Your task to perform on an android device: Clear all items from cart on newegg. Search for "razer deathadder" on newegg, select the first entry, and add it to the cart. Image 0: 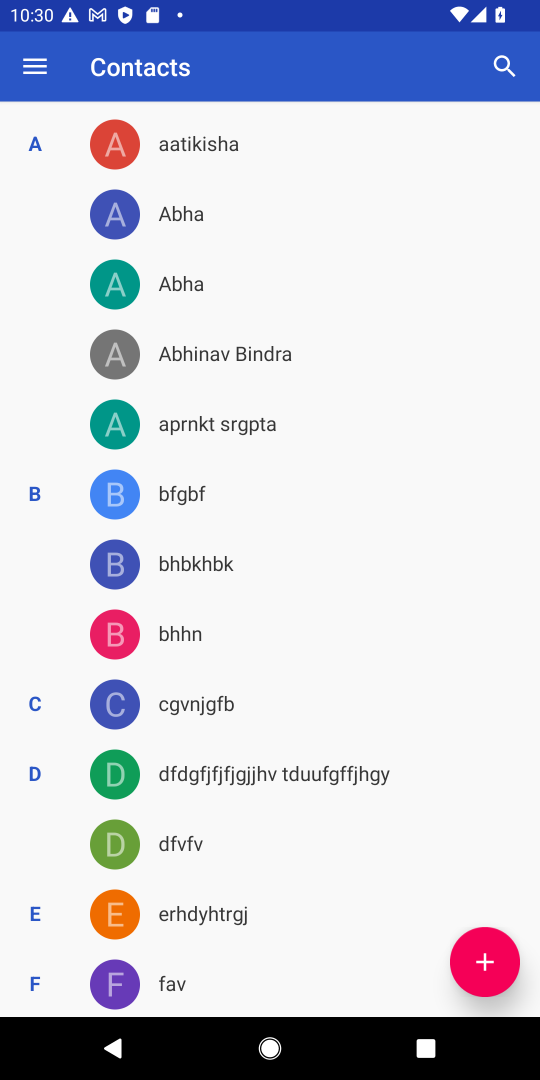
Step 0: press home button
Your task to perform on an android device: Clear all items from cart on newegg. Search for "razer deathadder" on newegg, select the first entry, and add it to the cart. Image 1: 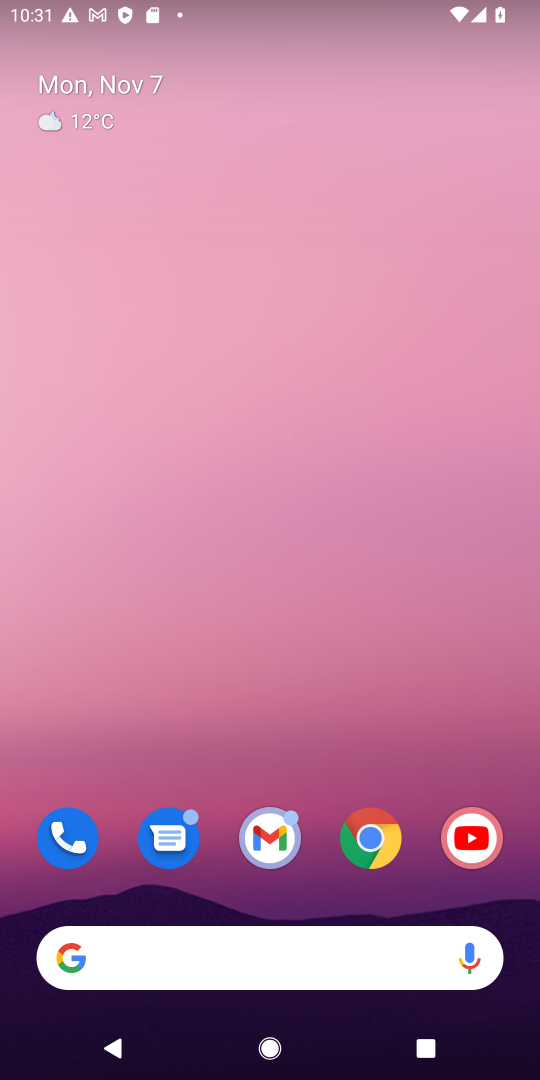
Step 1: click (372, 826)
Your task to perform on an android device: Clear all items from cart on newegg. Search for "razer deathadder" on newegg, select the first entry, and add it to the cart. Image 2: 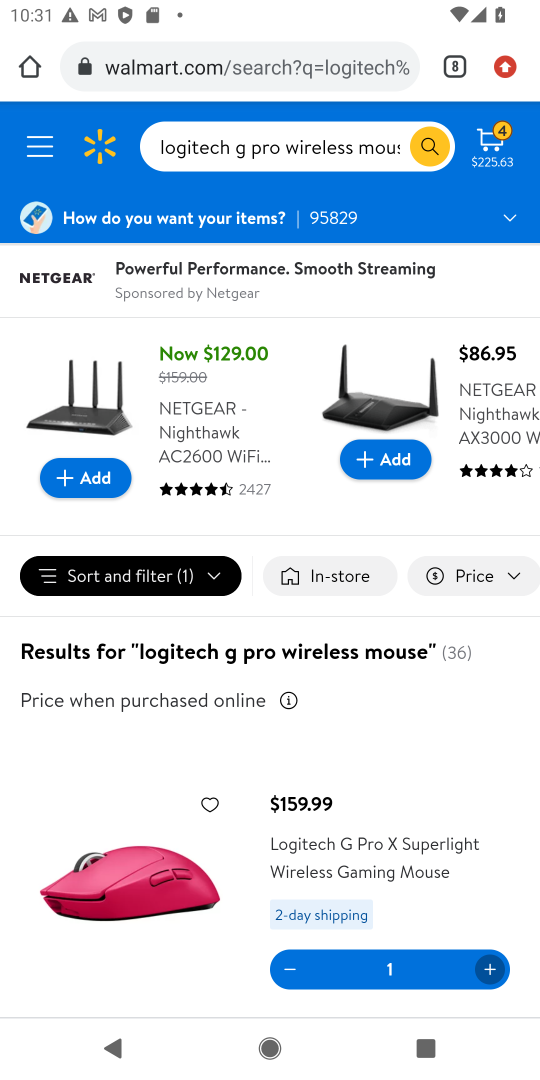
Step 2: click (452, 65)
Your task to perform on an android device: Clear all items from cart on newegg. Search for "razer deathadder" on newegg, select the first entry, and add it to the cart. Image 3: 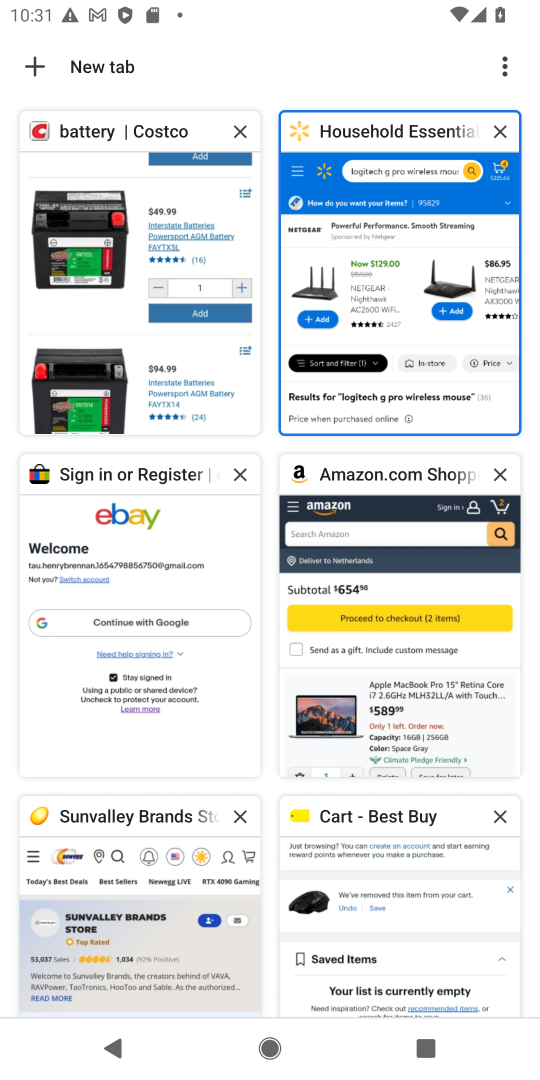
Step 3: drag from (213, 1001) to (331, 479)
Your task to perform on an android device: Clear all items from cart on newegg. Search for "razer deathadder" on newegg, select the first entry, and add it to the cart. Image 4: 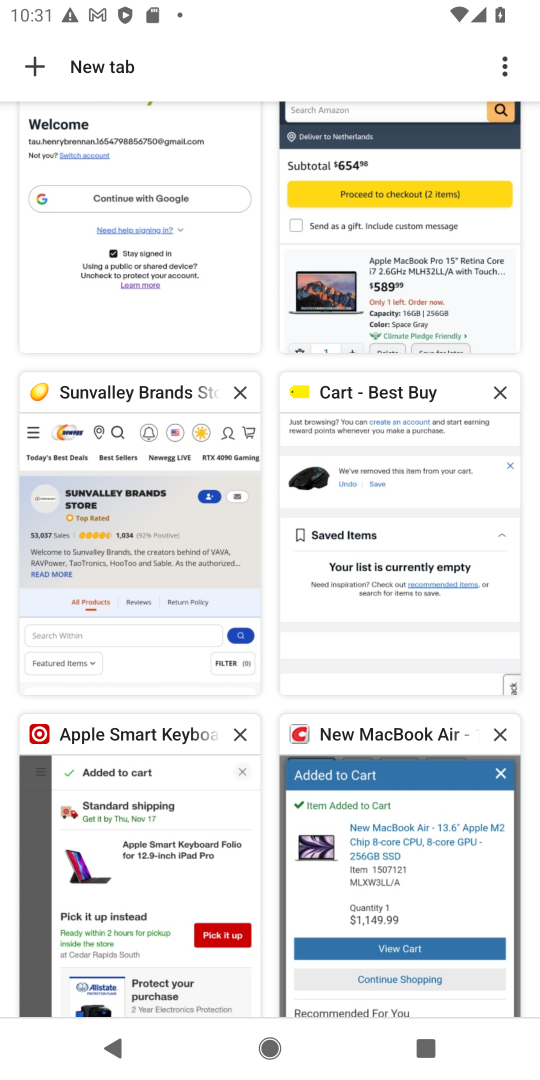
Step 4: click (241, 397)
Your task to perform on an android device: Clear all items from cart on newegg. Search for "razer deathadder" on newegg, select the first entry, and add it to the cart. Image 5: 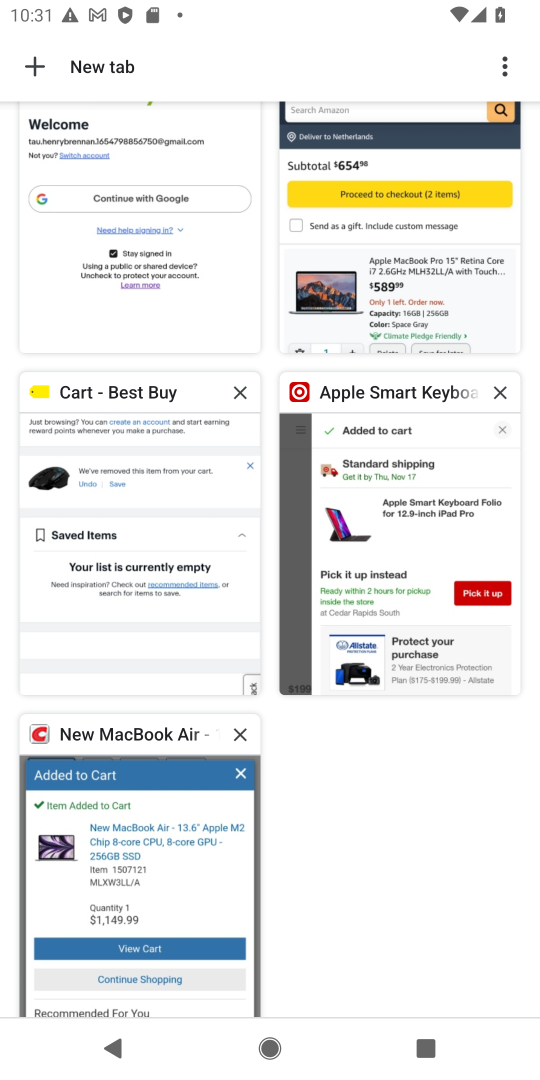
Step 5: drag from (337, 454) to (282, 990)
Your task to perform on an android device: Clear all items from cart on newegg. Search for "razer deathadder" on newegg, select the first entry, and add it to the cart. Image 6: 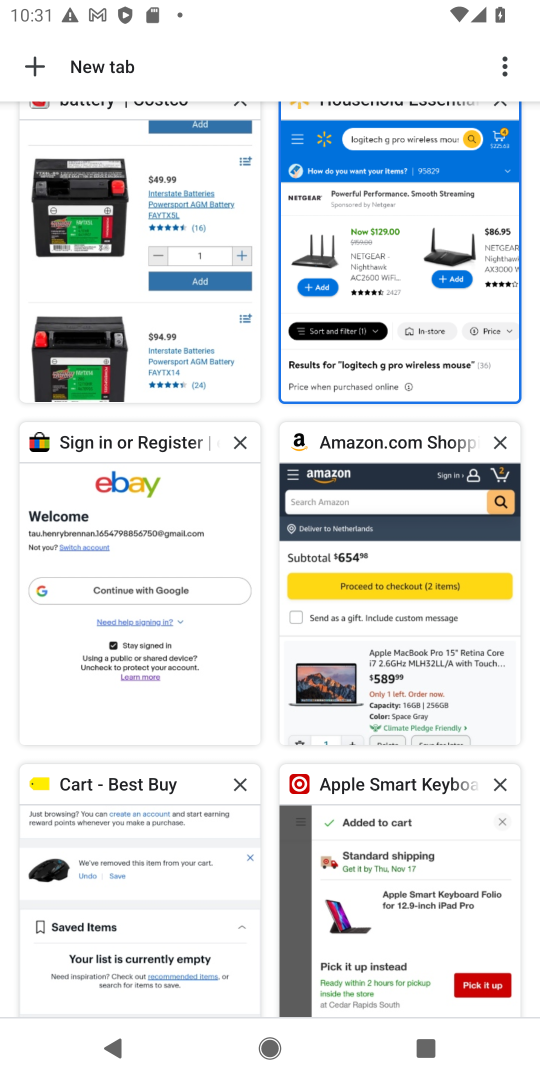
Step 6: drag from (378, 368) to (376, 887)
Your task to perform on an android device: Clear all items from cart on newegg. Search for "razer deathadder" on newegg, select the first entry, and add it to the cart. Image 7: 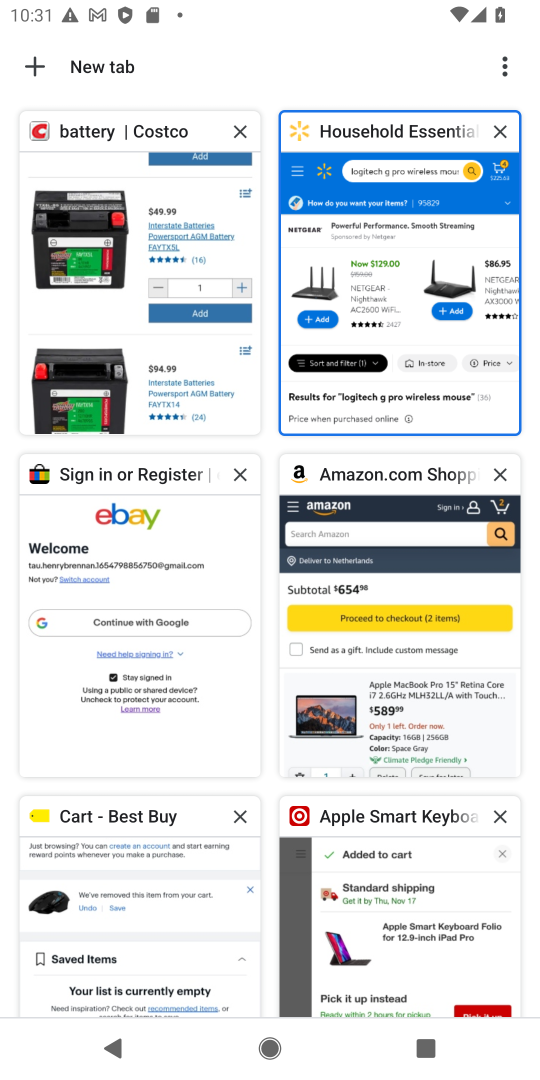
Step 7: click (239, 132)
Your task to perform on an android device: Clear all items from cart on newegg. Search for "razer deathadder" on newegg, select the first entry, and add it to the cart. Image 8: 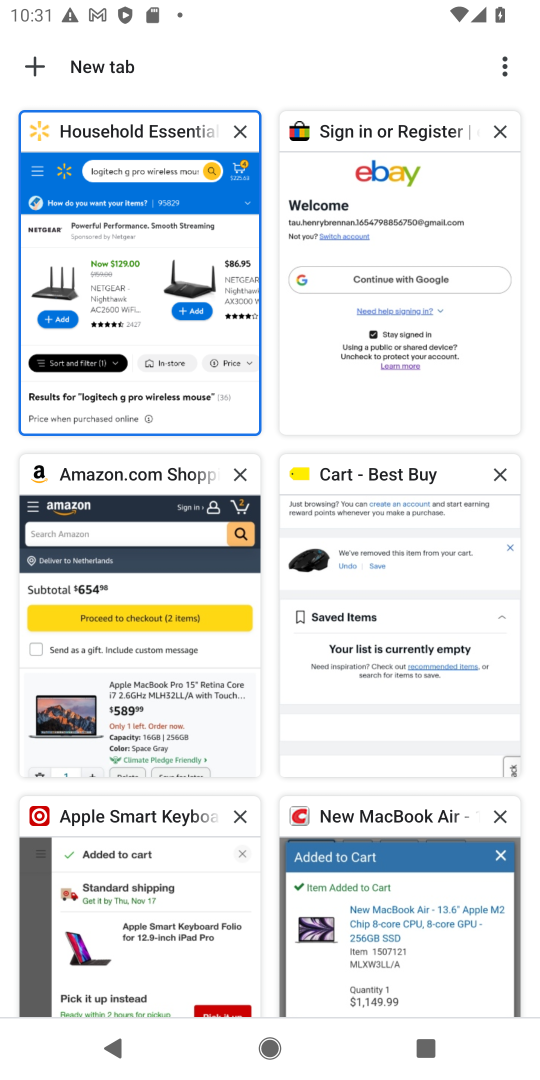
Step 8: click (35, 61)
Your task to perform on an android device: Clear all items from cart on newegg. Search for "razer deathadder" on newegg, select the first entry, and add it to the cart. Image 9: 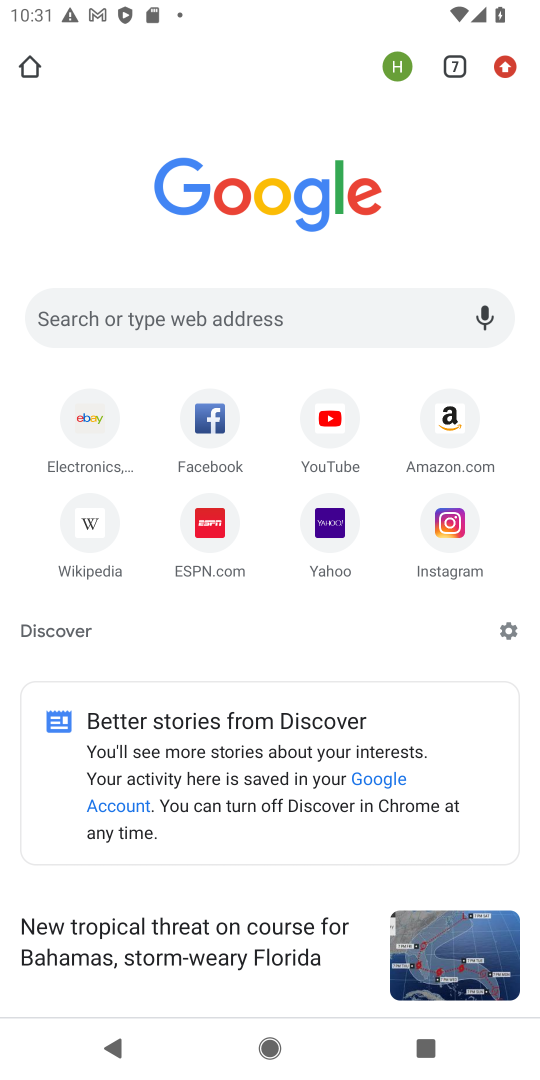
Step 9: click (217, 323)
Your task to perform on an android device: Clear all items from cart on newegg. Search for "razer deathadder" on newegg, select the first entry, and add it to the cart. Image 10: 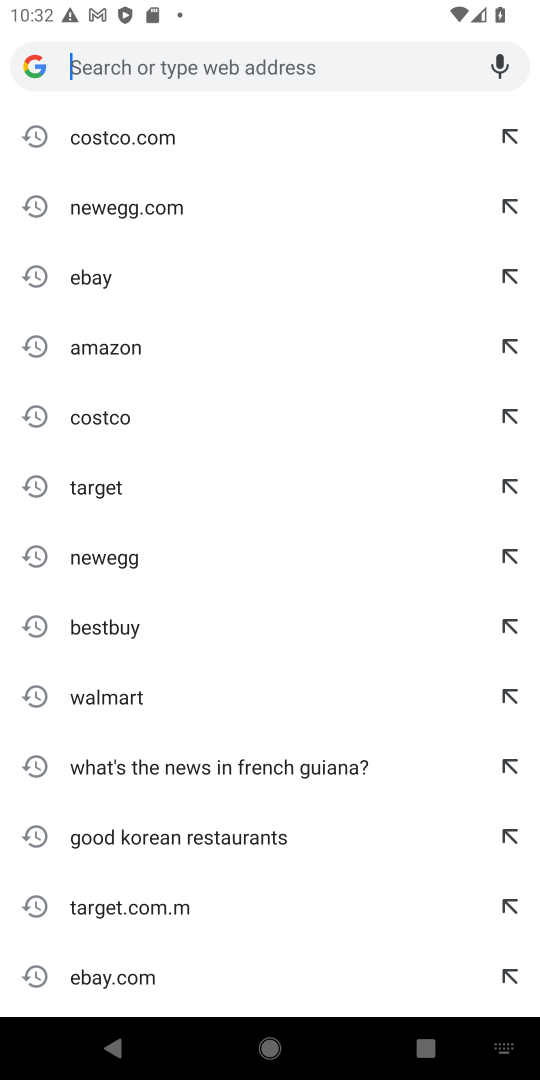
Step 10: click (108, 565)
Your task to perform on an android device: Clear all items from cart on newegg. Search for "razer deathadder" on newegg, select the first entry, and add it to the cart. Image 11: 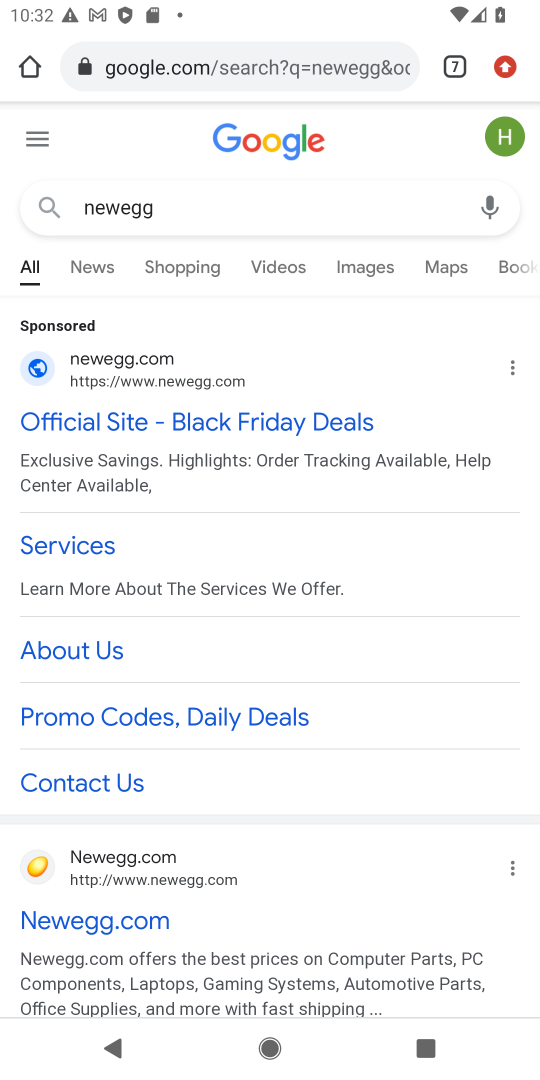
Step 11: drag from (185, 944) to (342, 436)
Your task to perform on an android device: Clear all items from cart on newegg. Search for "razer deathadder" on newegg, select the first entry, and add it to the cart. Image 12: 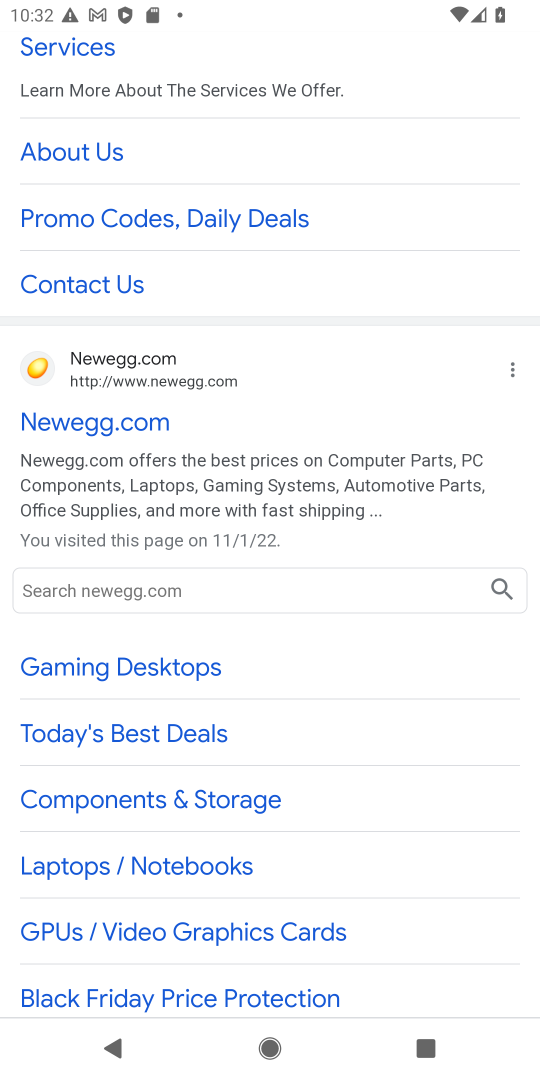
Step 12: click (115, 578)
Your task to perform on an android device: Clear all items from cart on newegg. Search for "razer deathadder" on newegg, select the first entry, and add it to the cart. Image 13: 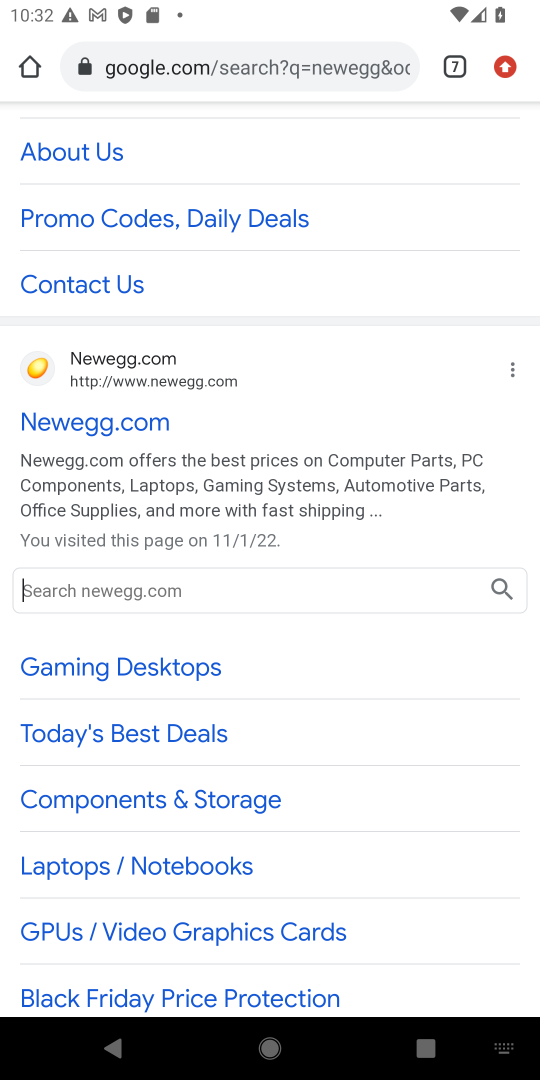
Step 13: type "razer deathadder"
Your task to perform on an android device: Clear all items from cart on newegg. Search for "razer deathadder" on newegg, select the first entry, and add it to the cart. Image 14: 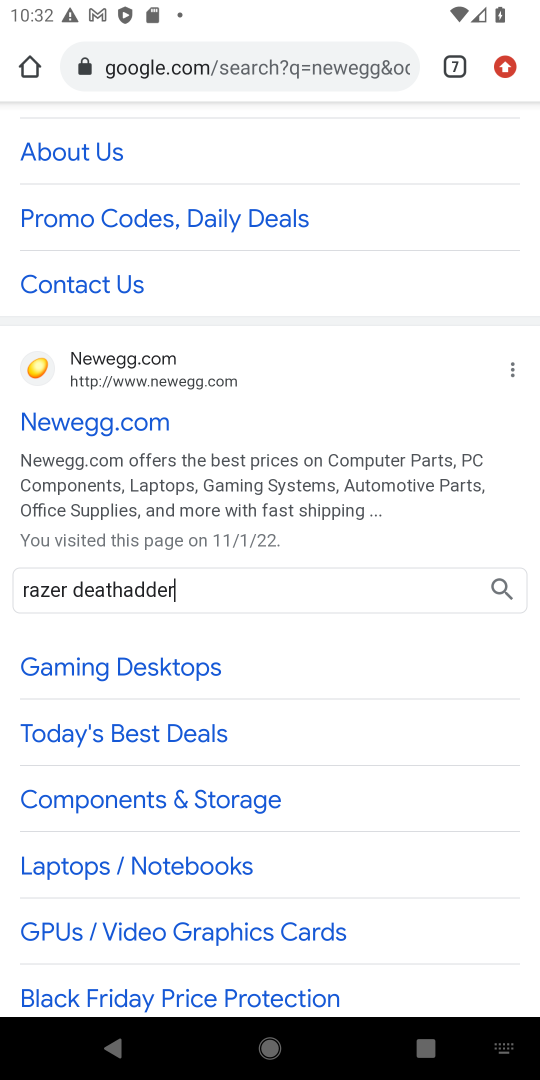
Step 14: click (495, 590)
Your task to perform on an android device: Clear all items from cart on newegg. Search for "razer deathadder" on newegg, select the first entry, and add it to the cart. Image 15: 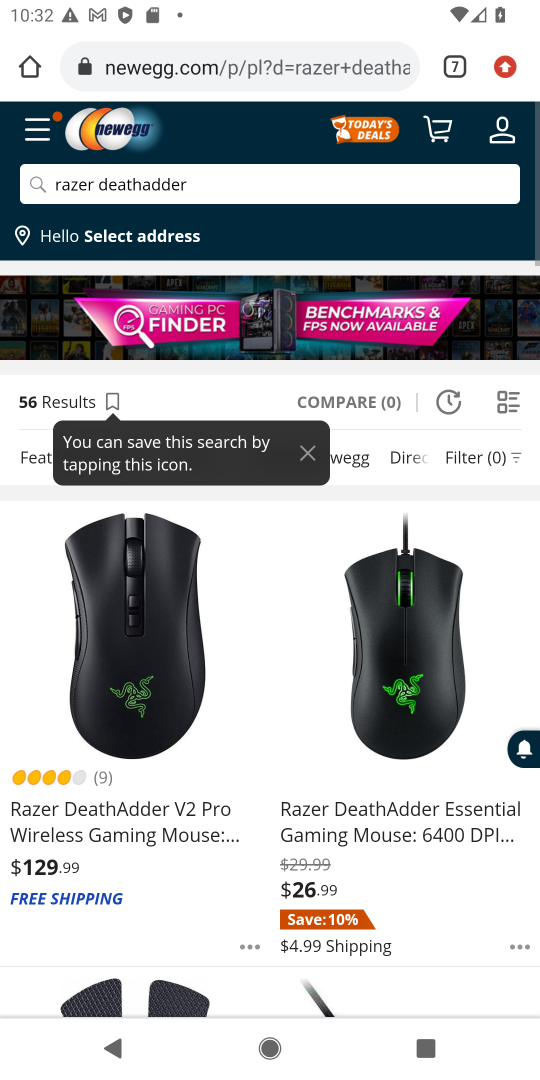
Step 15: click (309, 831)
Your task to perform on an android device: Clear all items from cart on newegg. Search for "razer deathadder" on newegg, select the first entry, and add it to the cart. Image 16: 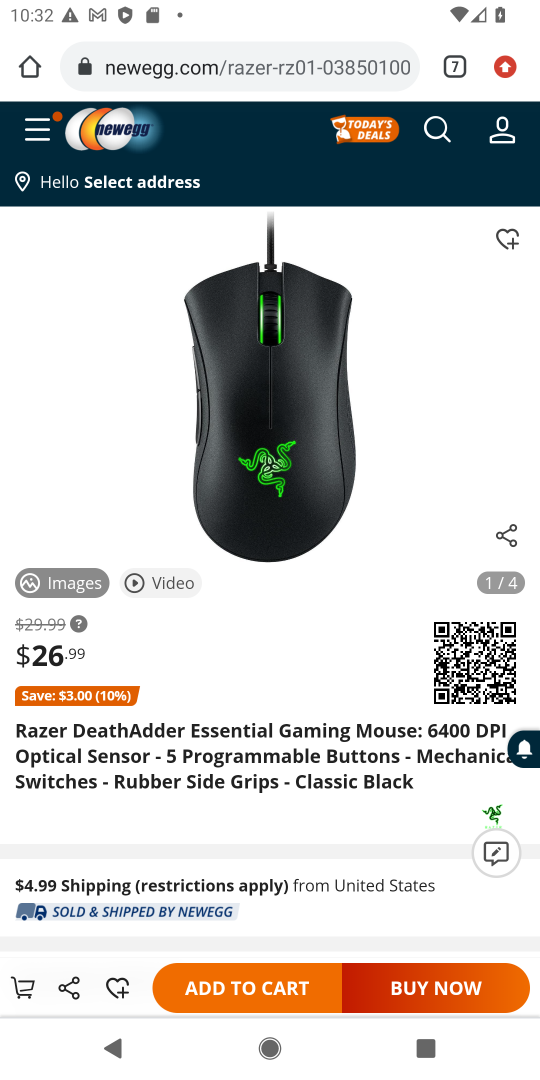
Step 16: click (230, 991)
Your task to perform on an android device: Clear all items from cart on newegg. Search for "razer deathadder" on newegg, select the first entry, and add it to the cart. Image 17: 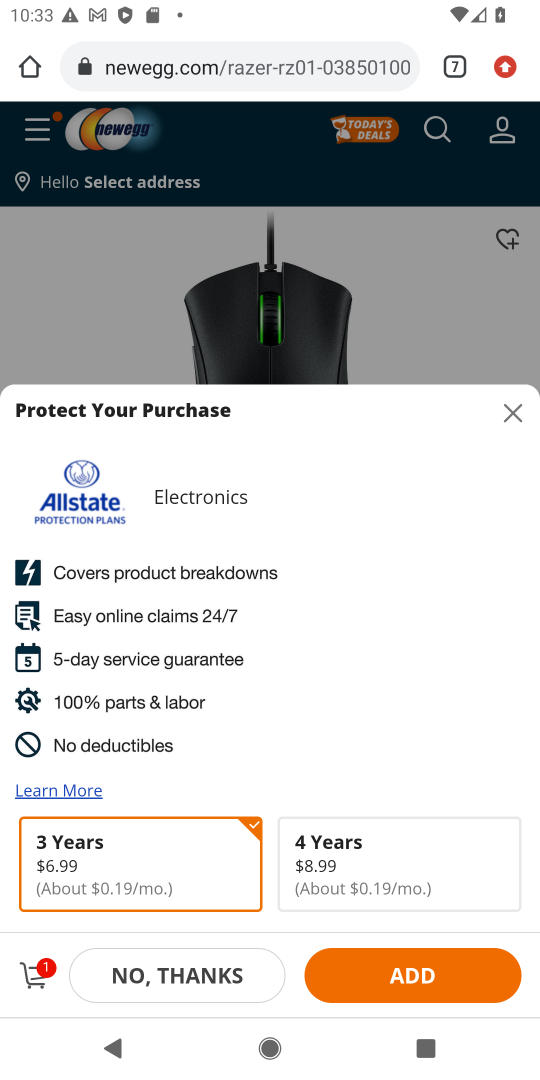
Step 17: task complete